Your task to perform on an android device: change alarm snooze length Image 0: 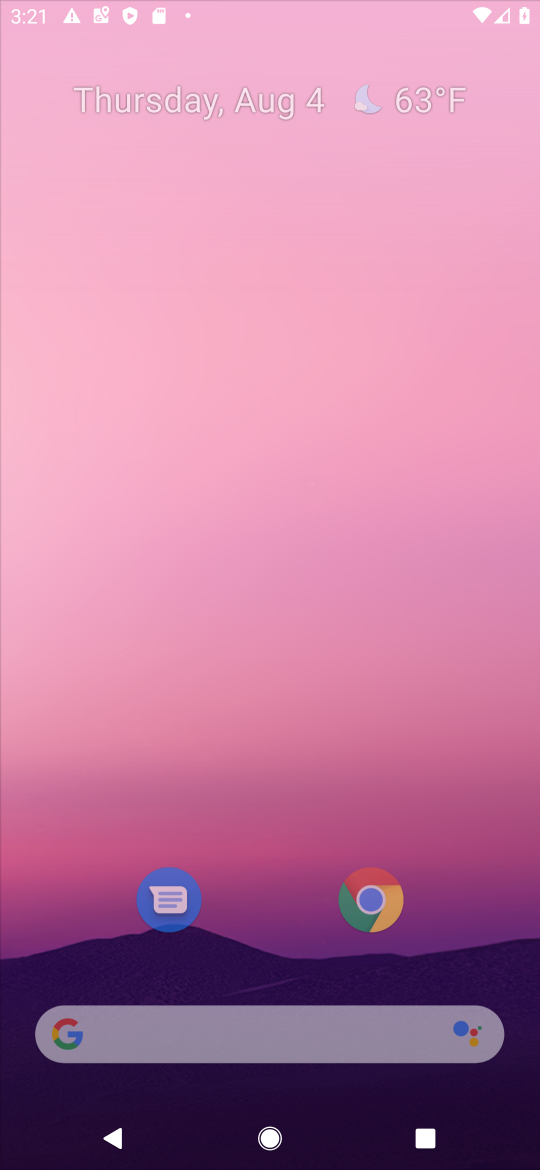
Step 0: press home button
Your task to perform on an android device: change alarm snooze length Image 1: 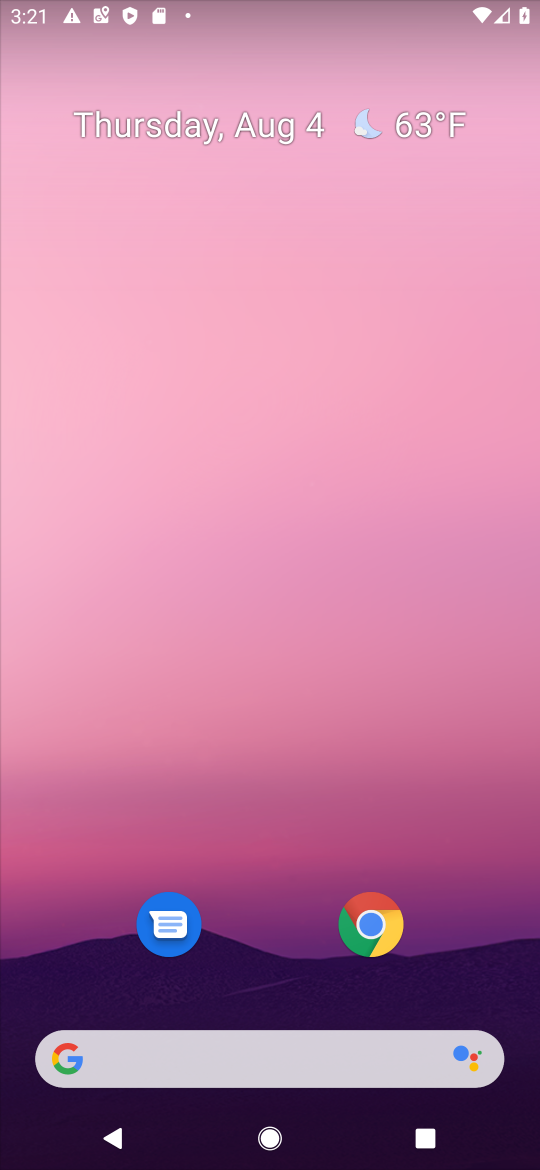
Step 1: drag from (274, 958) to (252, 332)
Your task to perform on an android device: change alarm snooze length Image 2: 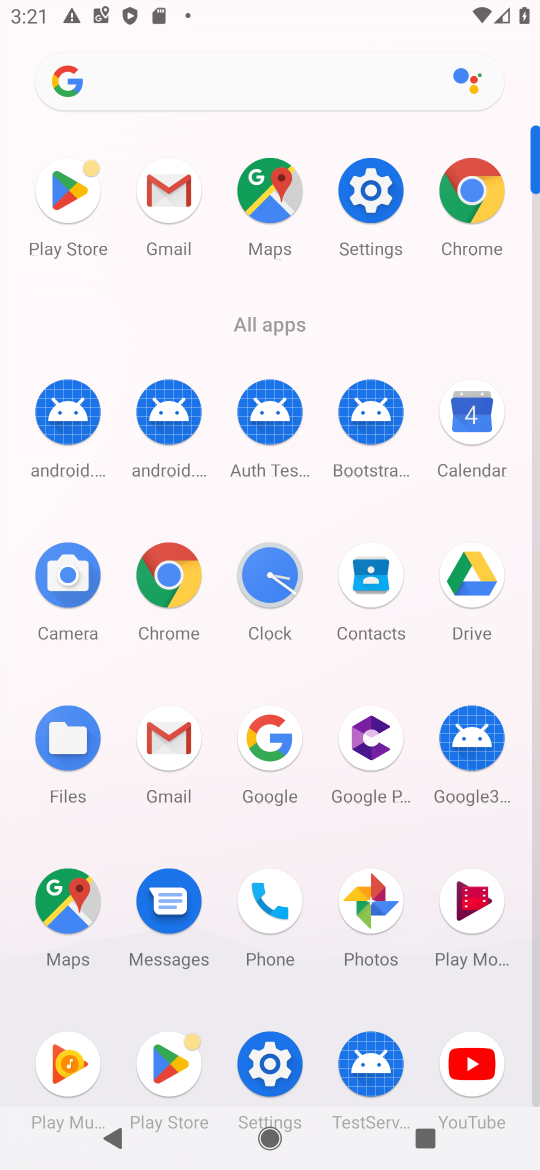
Step 2: click (282, 571)
Your task to perform on an android device: change alarm snooze length Image 3: 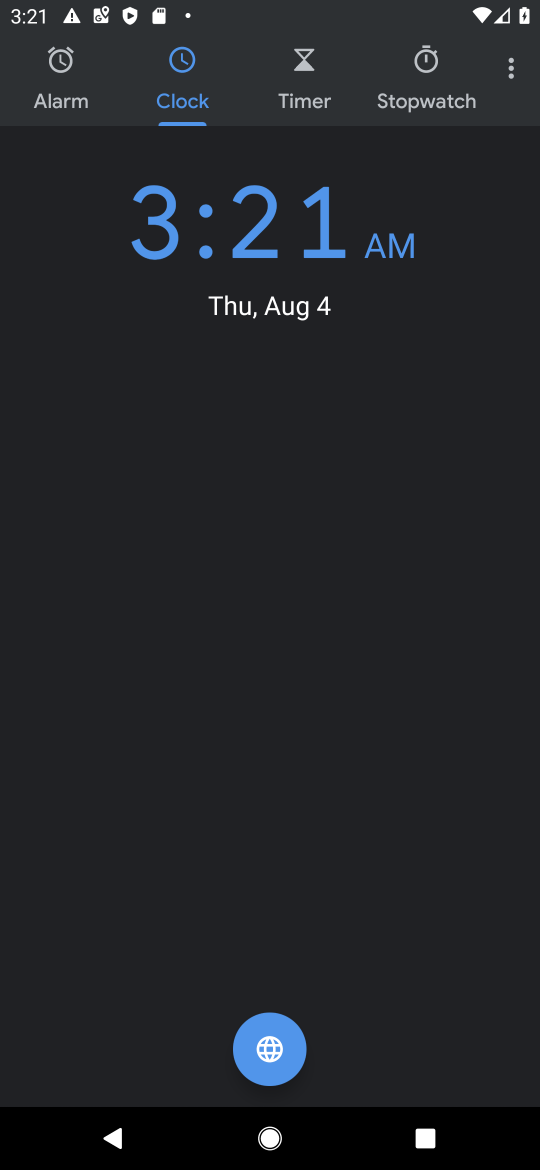
Step 3: click (508, 70)
Your task to perform on an android device: change alarm snooze length Image 4: 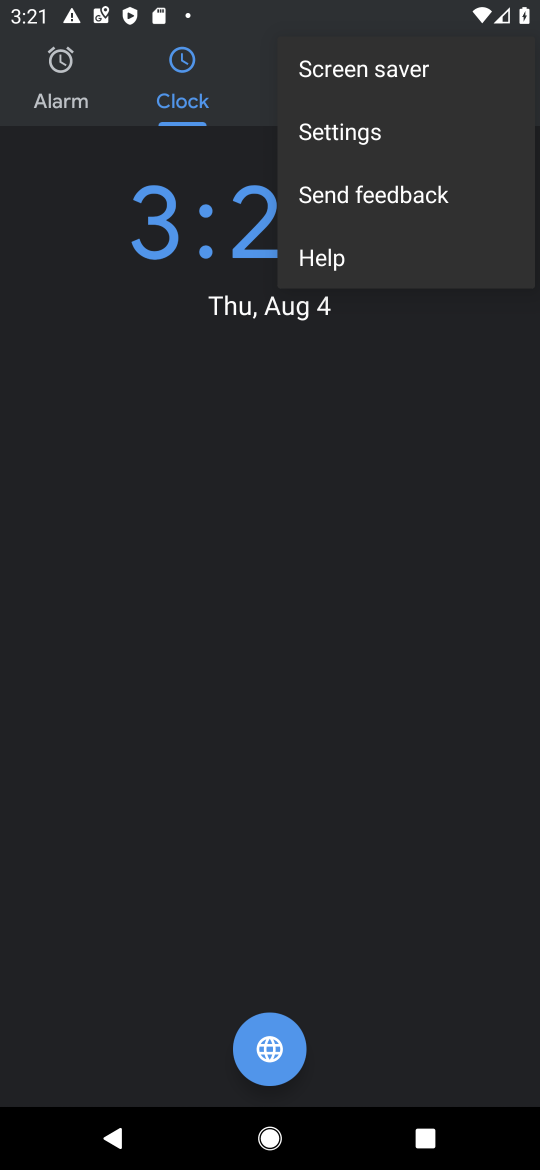
Step 4: click (353, 140)
Your task to perform on an android device: change alarm snooze length Image 5: 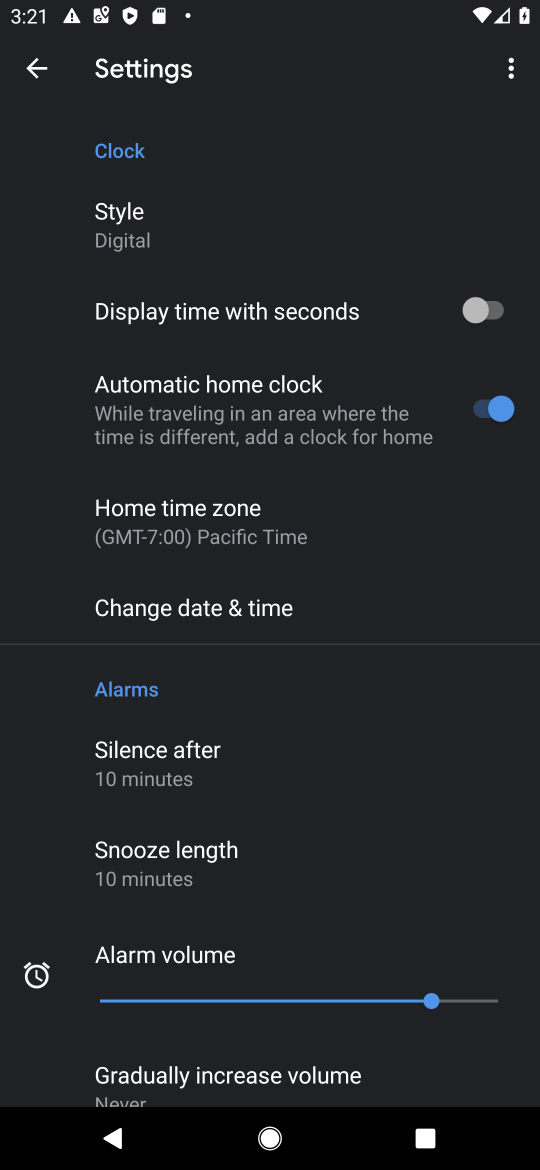
Step 5: click (195, 850)
Your task to perform on an android device: change alarm snooze length Image 6: 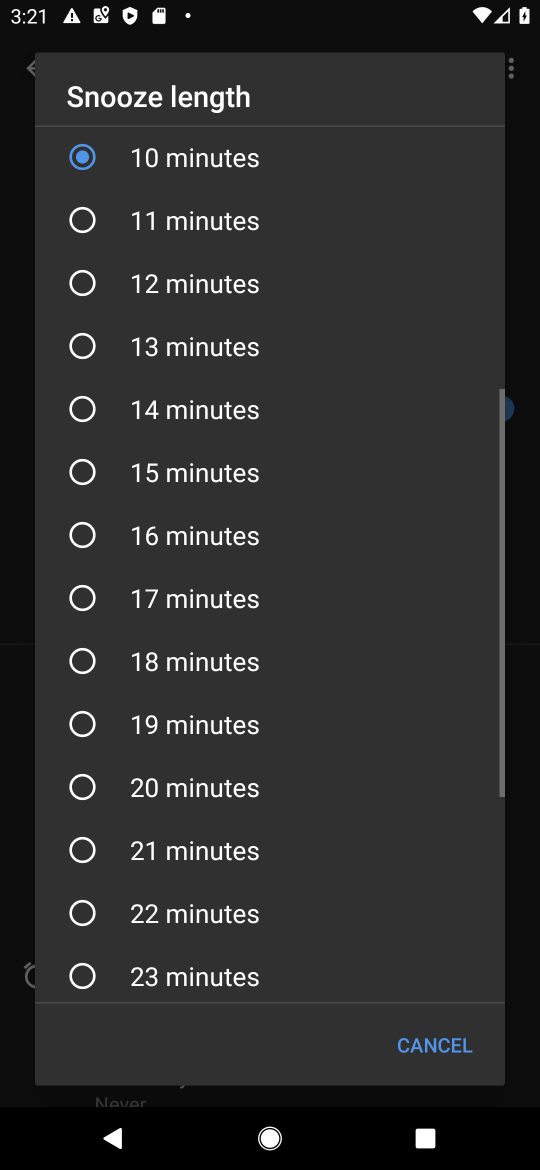
Step 6: click (90, 403)
Your task to perform on an android device: change alarm snooze length Image 7: 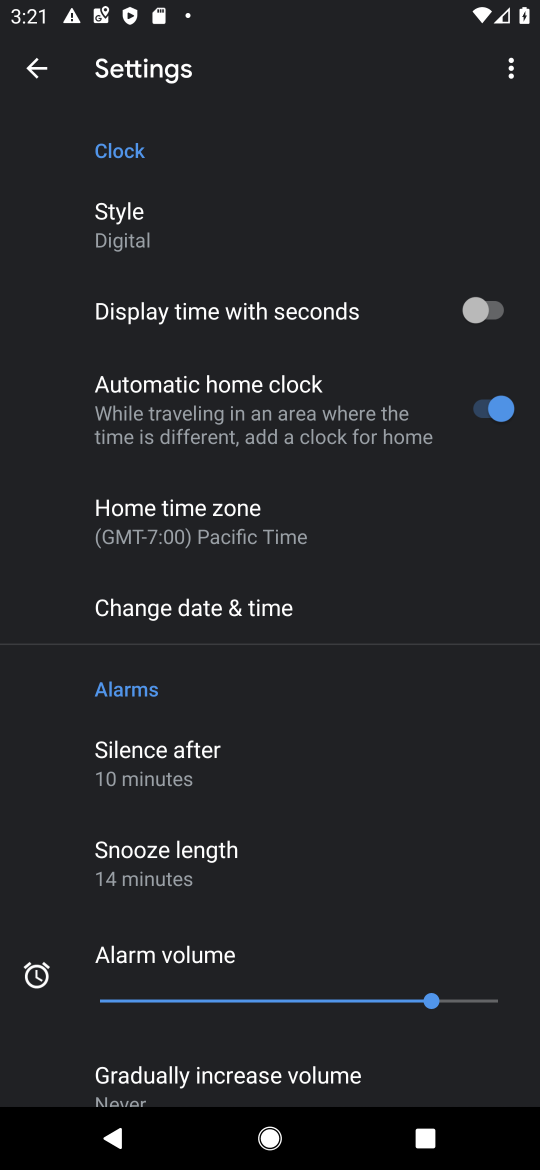
Step 7: task complete